Your task to perform on an android device: turn off priority inbox in the gmail app Image 0: 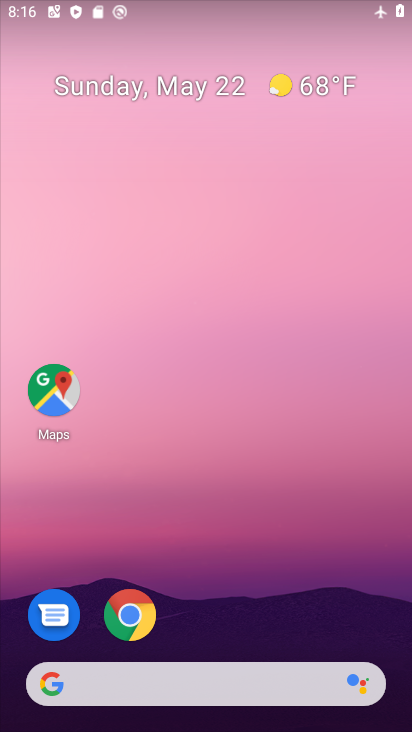
Step 0: drag from (220, 640) to (96, 124)
Your task to perform on an android device: turn off priority inbox in the gmail app Image 1: 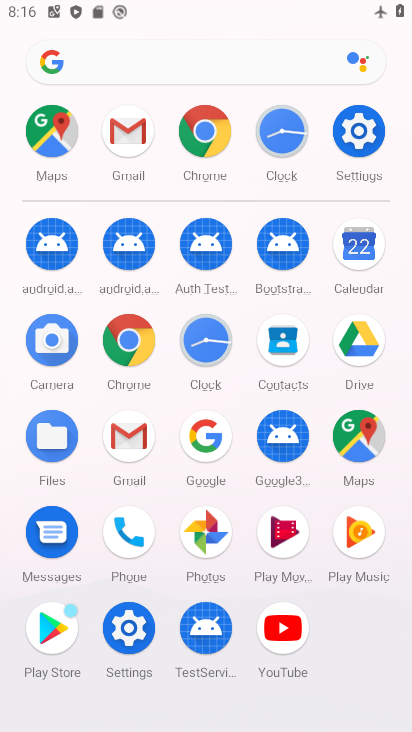
Step 1: click (117, 440)
Your task to perform on an android device: turn off priority inbox in the gmail app Image 2: 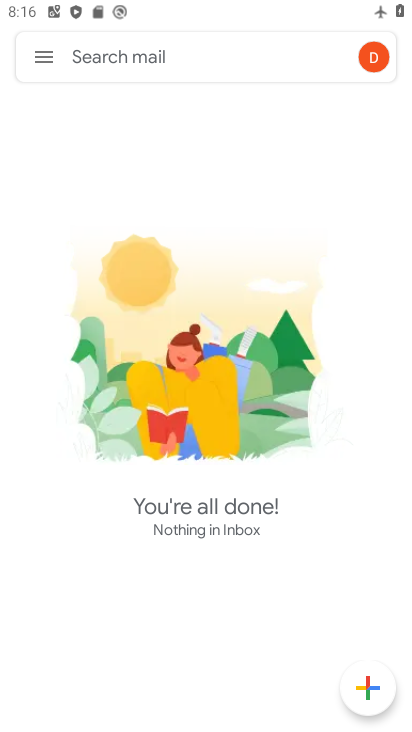
Step 2: click (50, 61)
Your task to perform on an android device: turn off priority inbox in the gmail app Image 3: 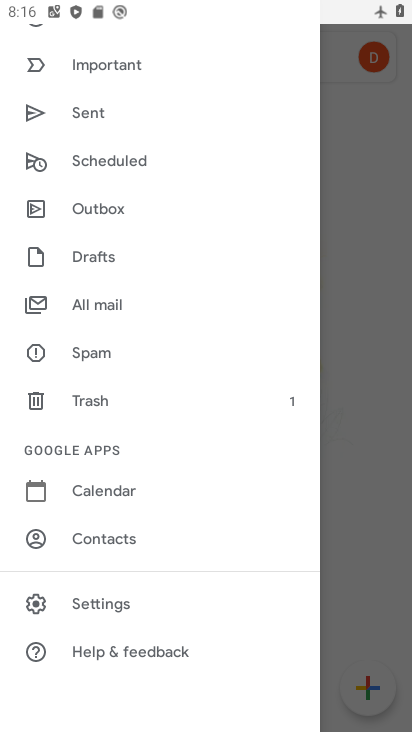
Step 3: click (89, 610)
Your task to perform on an android device: turn off priority inbox in the gmail app Image 4: 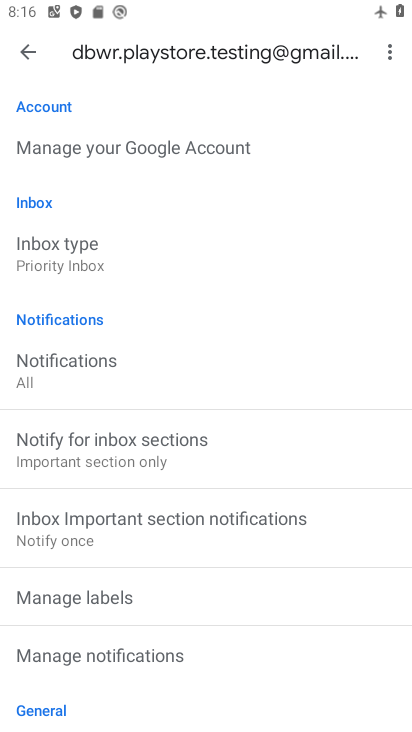
Step 4: click (86, 244)
Your task to perform on an android device: turn off priority inbox in the gmail app Image 5: 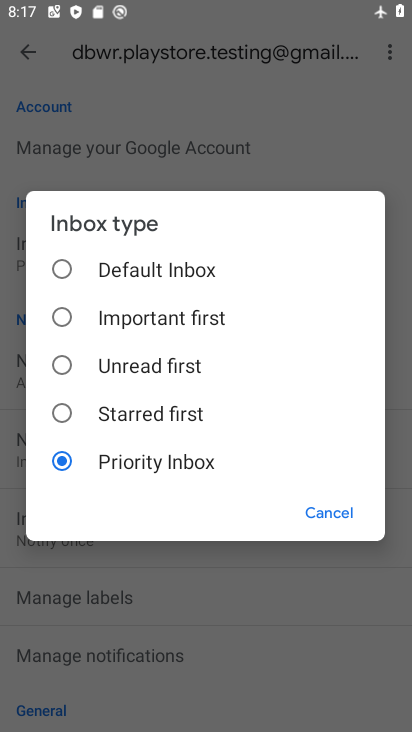
Step 5: click (66, 260)
Your task to perform on an android device: turn off priority inbox in the gmail app Image 6: 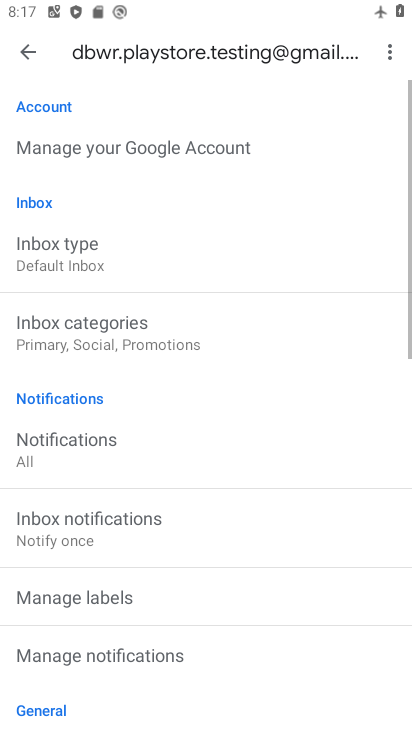
Step 6: task complete